Your task to perform on an android device: change the clock display to digital Image 0: 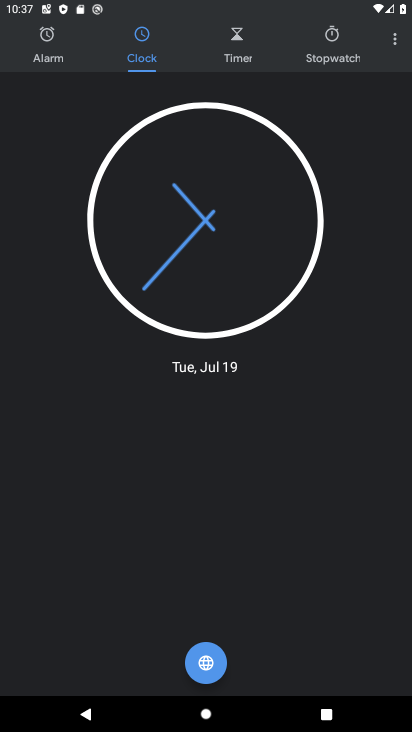
Step 0: click (390, 37)
Your task to perform on an android device: change the clock display to digital Image 1: 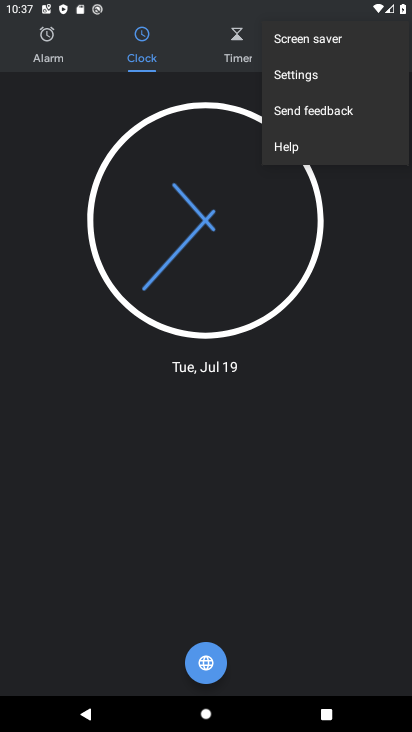
Step 1: click (302, 73)
Your task to perform on an android device: change the clock display to digital Image 2: 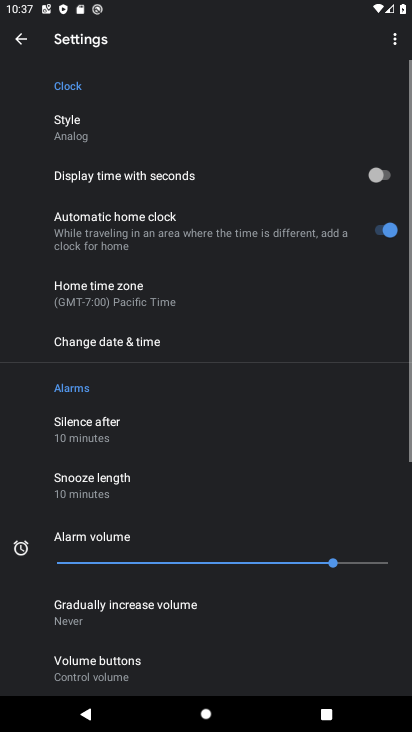
Step 2: click (94, 127)
Your task to perform on an android device: change the clock display to digital Image 3: 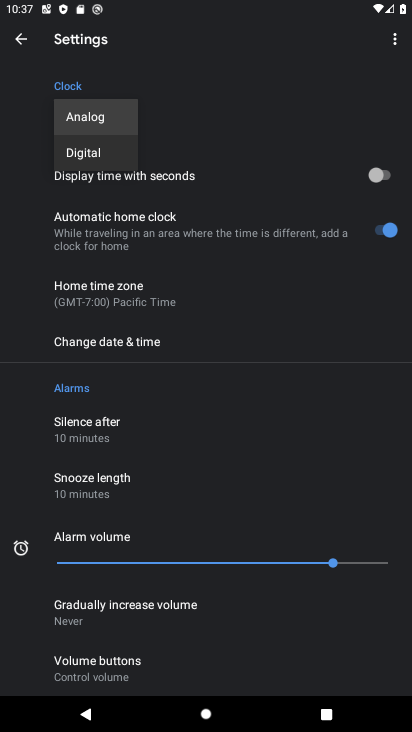
Step 3: click (95, 148)
Your task to perform on an android device: change the clock display to digital Image 4: 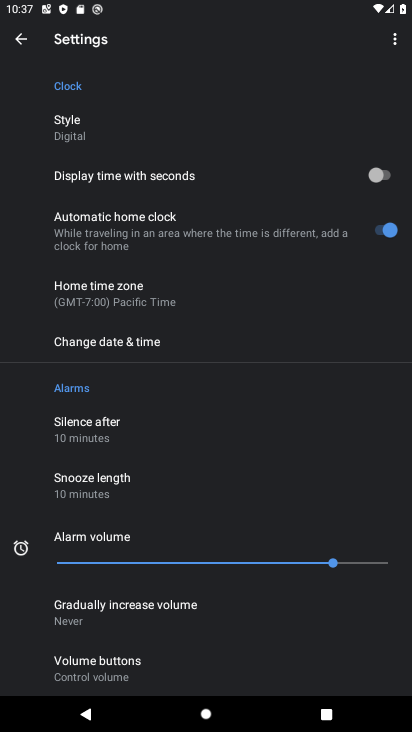
Step 4: task complete